Your task to perform on an android device: Search for macbook pro 13 inch on target.com, select the first entry, add it to the cart, then select checkout. Image 0: 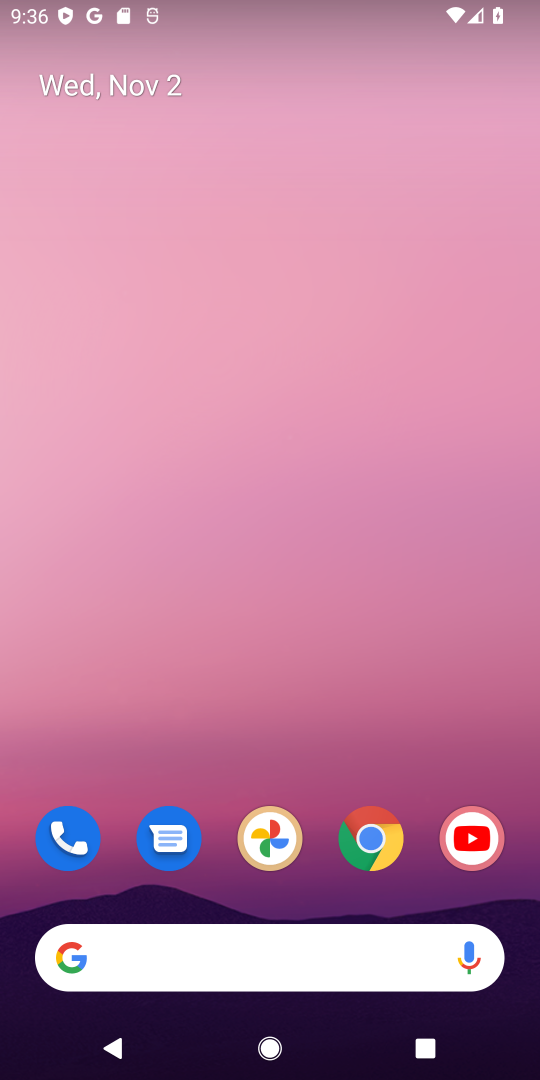
Step 0: click (370, 833)
Your task to perform on an android device: Search for macbook pro 13 inch on target.com, select the first entry, add it to the cart, then select checkout. Image 1: 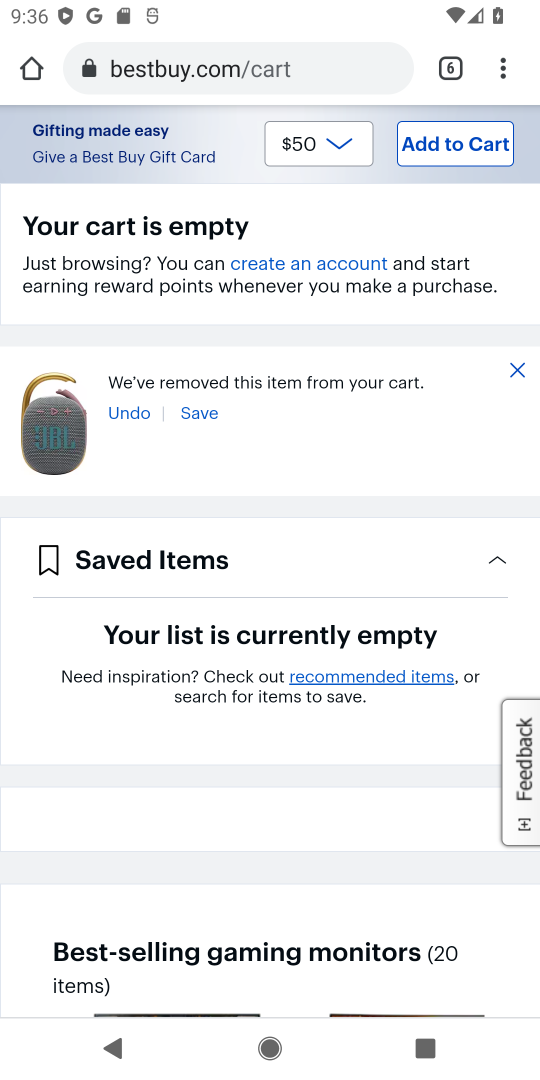
Step 1: click (446, 68)
Your task to perform on an android device: Search for macbook pro 13 inch on target.com, select the first entry, add it to the cart, then select checkout. Image 2: 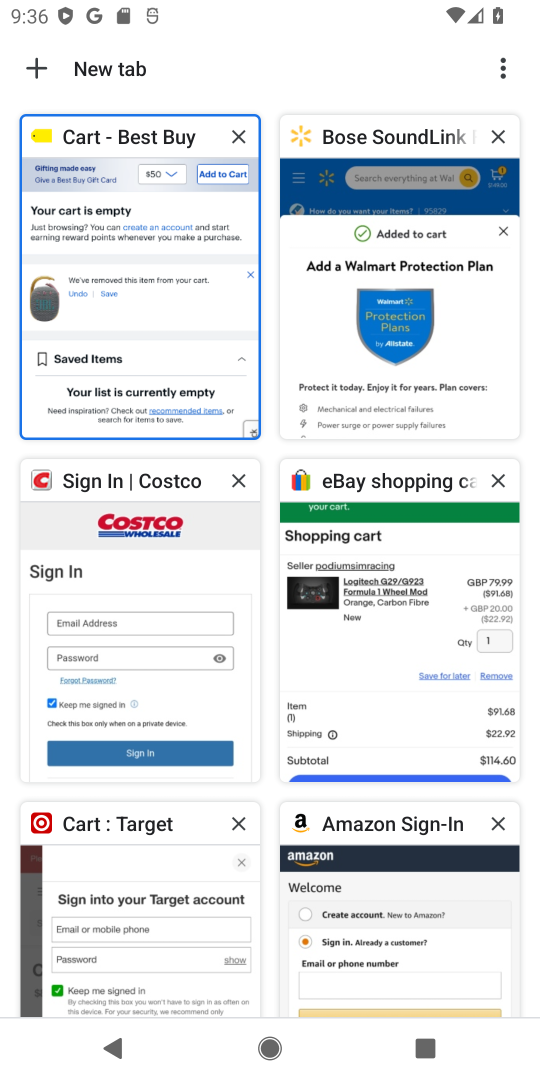
Step 2: click (77, 837)
Your task to perform on an android device: Search for macbook pro 13 inch on target.com, select the first entry, add it to the cart, then select checkout. Image 3: 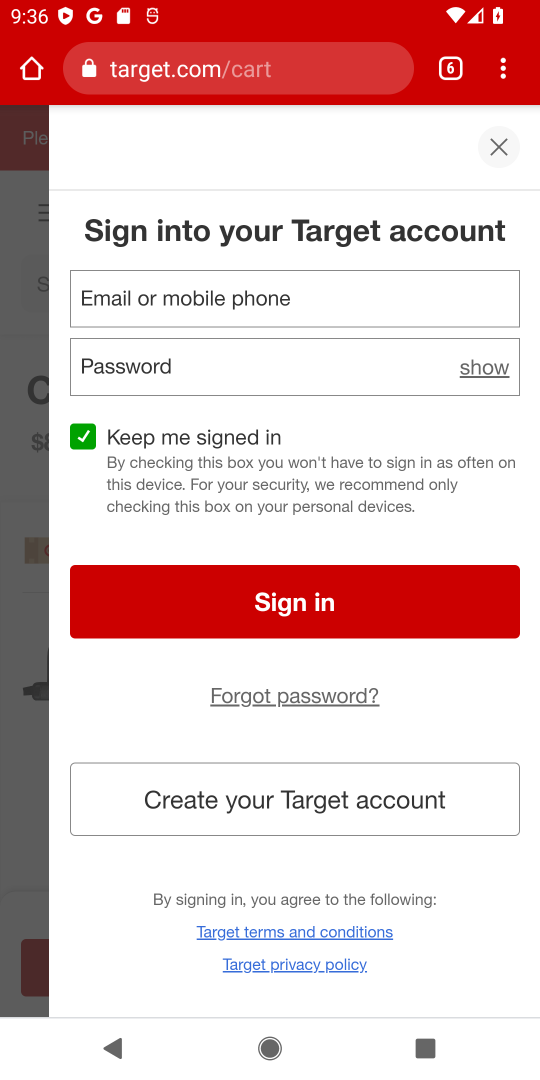
Step 3: click (497, 148)
Your task to perform on an android device: Search for macbook pro 13 inch on target.com, select the first entry, add it to the cart, then select checkout. Image 4: 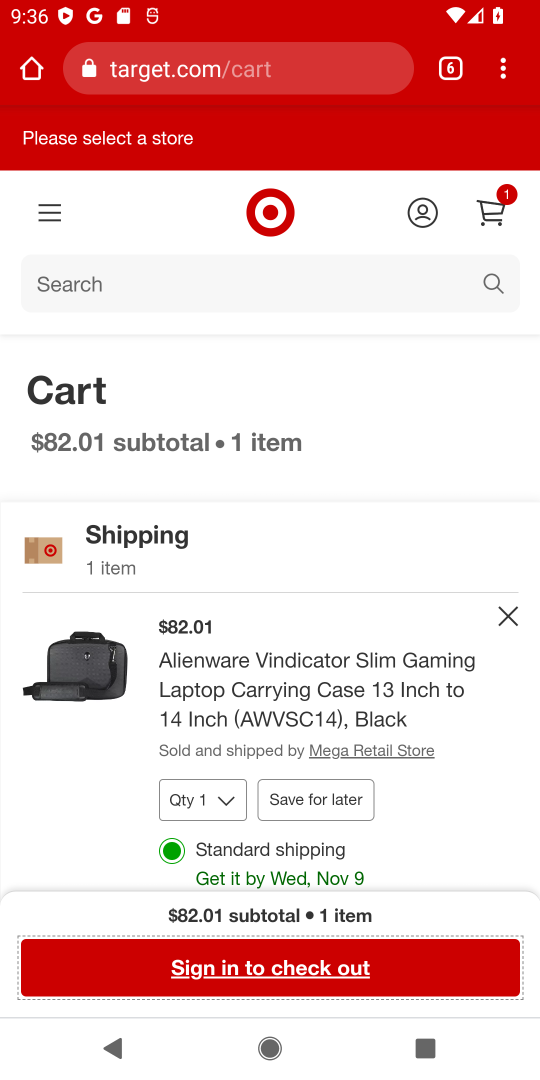
Step 4: click (106, 290)
Your task to perform on an android device: Search for macbook pro 13 inch on target.com, select the first entry, add it to the cart, then select checkout. Image 5: 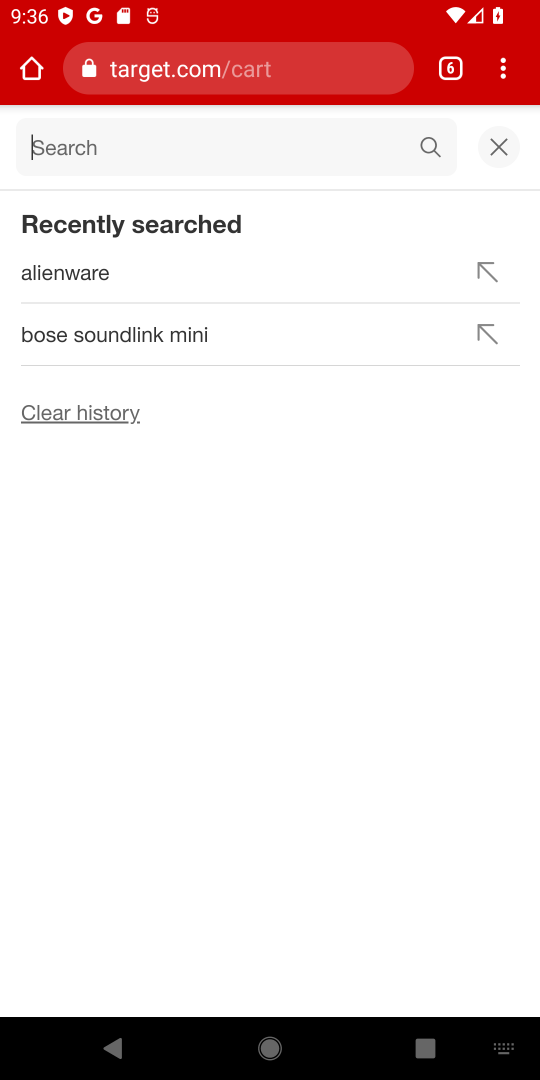
Step 5: type "macbook pro 13 inch"
Your task to perform on an android device: Search for macbook pro 13 inch on target.com, select the first entry, add it to the cart, then select checkout. Image 6: 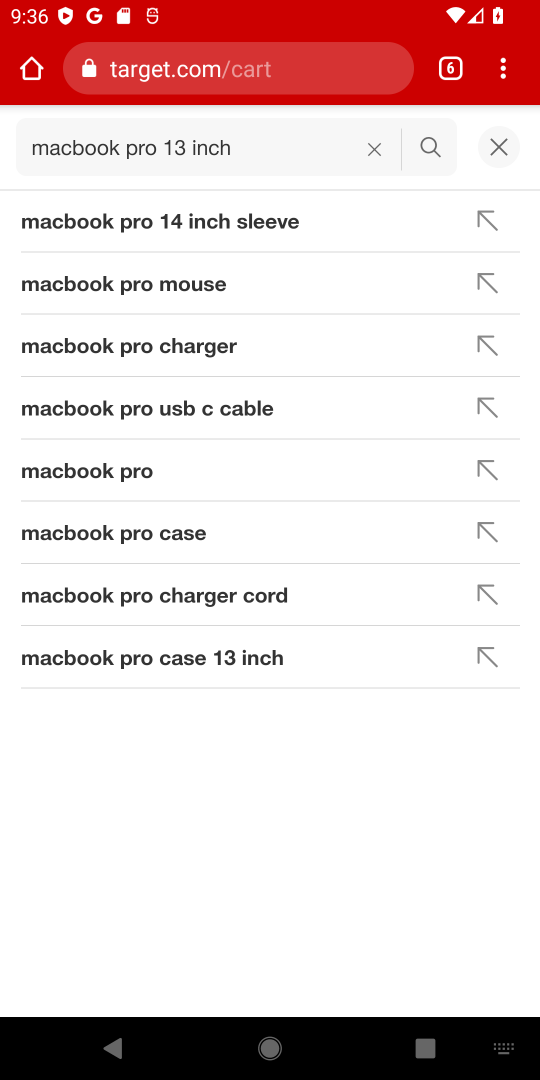
Step 6: click (167, 218)
Your task to perform on an android device: Search for macbook pro 13 inch on target.com, select the first entry, add it to the cart, then select checkout. Image 7: 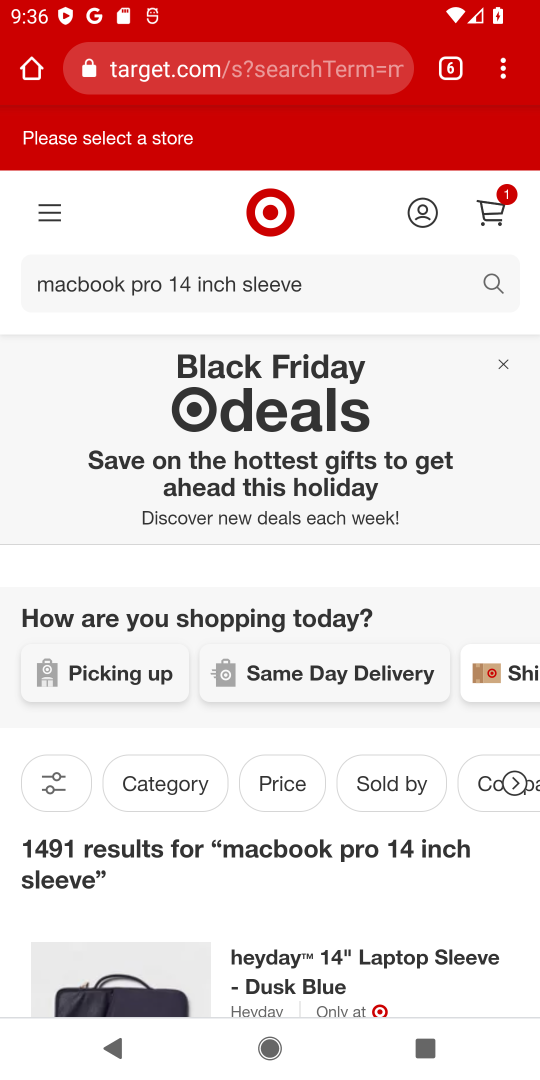
Step 7: drag from (315, 867) to (400, 421)
Your task to perform on an android device: Search for macbook pro 13 inch on target.com, select the first entry, add it to the cart, then select checkout. Image 8: 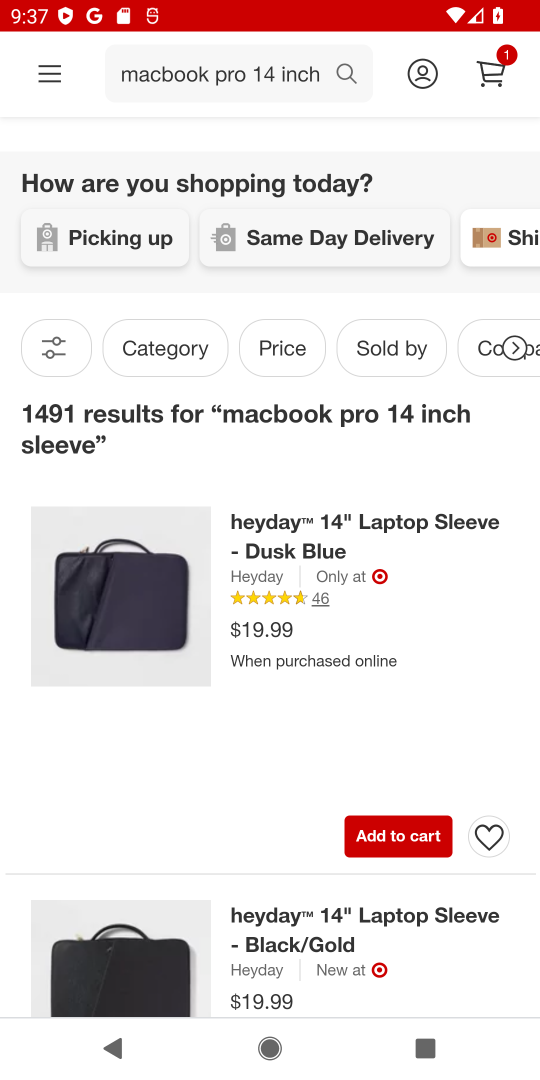
Step 8: click (372, 833)
Your task to perform on an android device: Search for macbook pro 13 inch on target.com, select the first entry, add it to the cart, then select checkout. Image 9: 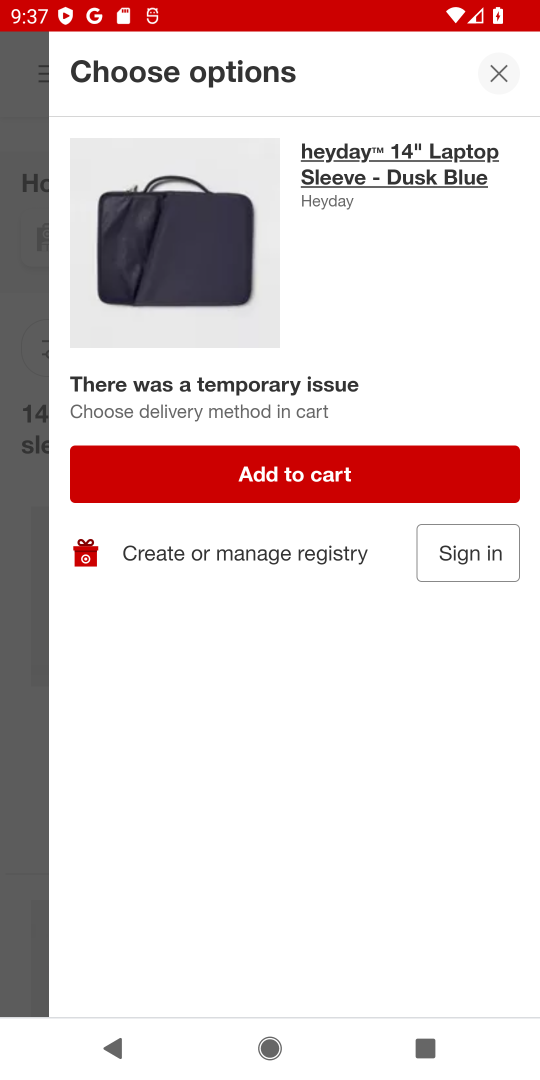
Step 9: click (320, 478)
Your task to perform on an android device: Search for macbook pro 13 inch on target.com, select the first entry, add it to the cart, then select checkout. Image 10: 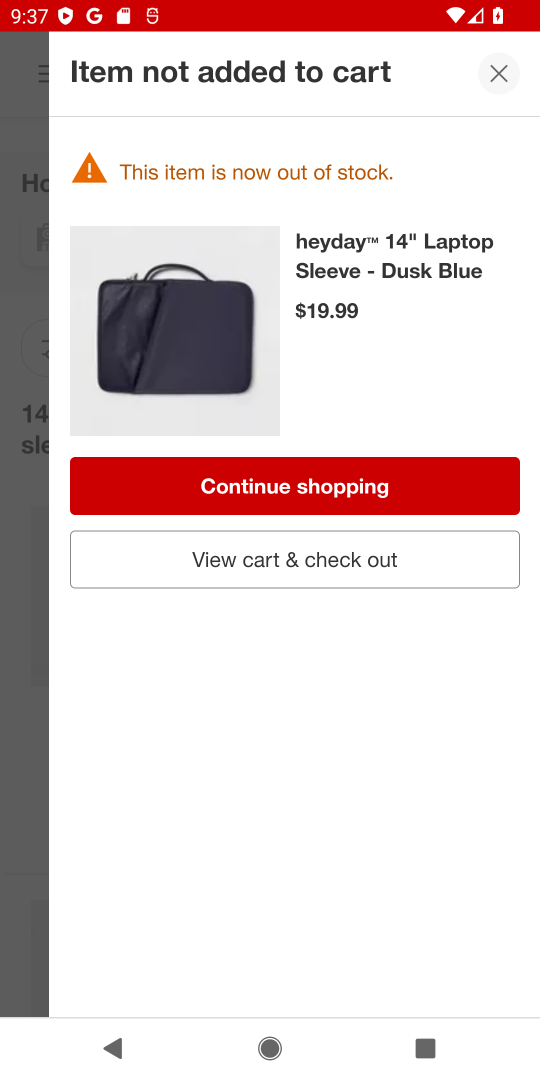
Step 10: click (328, 559)
Your task to perform on an android device: Search for macbook pro 13 inch on target.com, select the first entry, add it to the cart, then select checkout. Image 11: 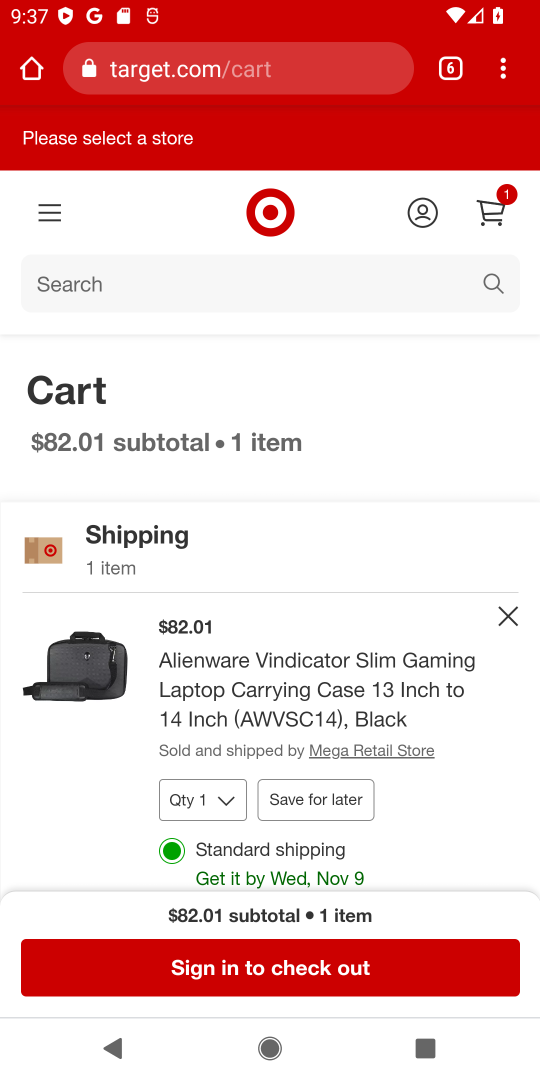
Step 11: click (305, 970)
Your task to perform on an android device: Search for macbook pro 13 inch on target.com, select the first entry, add it to the cart, then select checkout. Image 12: 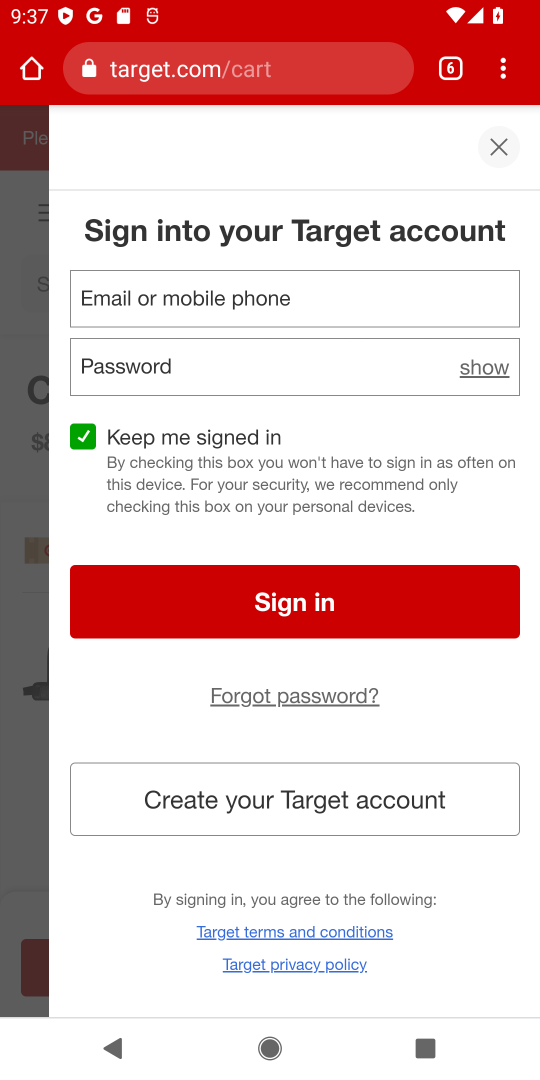
Step 12: task complete